Your task to perform on an android device: open app "Yahoo Mail" (install if not already installed) and enter user name: "lawsuit@inbox.com" and password: "pooch" Image 0: 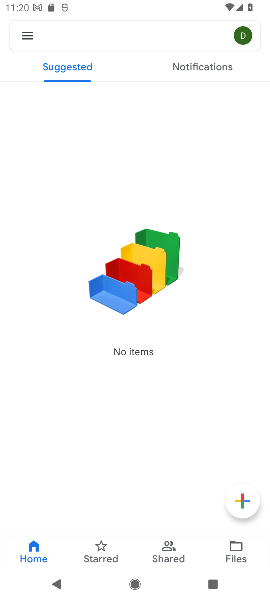
Step 0: drag from (125, 472) to (125, 114)
Your task to perform on an android device: open app "Yahoo Mail" (install if not already installed) and enter user name: "lawsuit@inbox.com" and password: "pooch" Image 1: 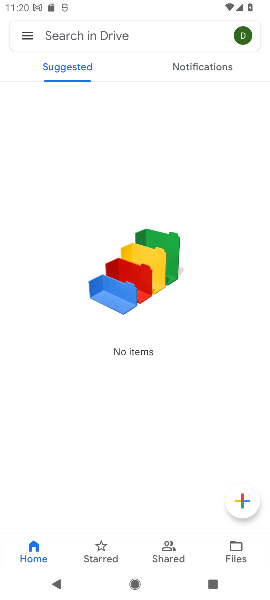
Step 1: press home button
Your task to perform on an android device: open app "Yahoo Mail" (install if not already installed) and enter user name: "lawsuit@inbox.com" and password: "pooch" Image 2: 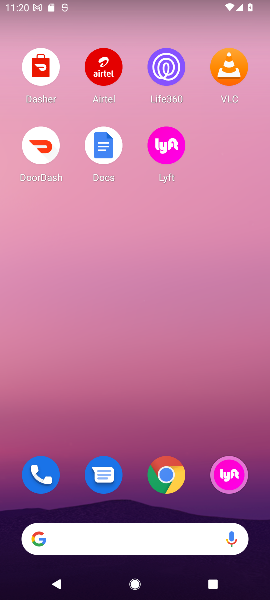
Step 2: drag from (121, 445) to (105, 87)
Your task to perform on an android device: open app "Yahoo Mail" (install if not already installed) and enter user name: "lawsuit@inbox.com" and password: "pooch" Image 3: 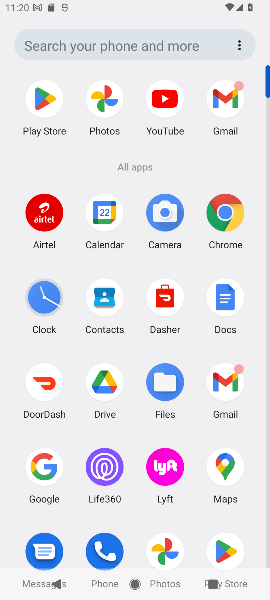
Step 3: click (36, 101)
Your task to perform on an android device: open app "Yahoo Mail" (install if not already installed) and enter user name: "lawsuit@inbox.com" and password: "pooch" Image 4: 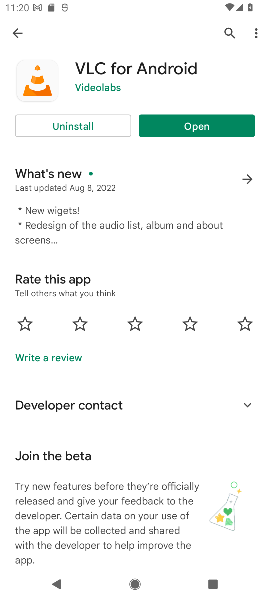
Step 4: click (21, 31)
Your task to perform on an android device: open app "Yahoo Mail" (install if not already installed) and enter user name: "lawsuit@inbox.com" and password: "pooch" Image 5: 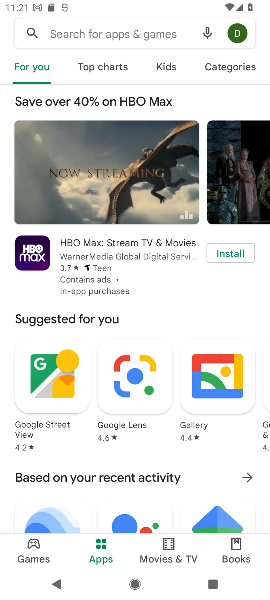
Step 5: click (85, 24)
Your task to perform on an android device: open app "Yahoo Mail" (install if not already installed) and enter user name: "lawsuit@inbox.com" and password: "pooch" Image 6: 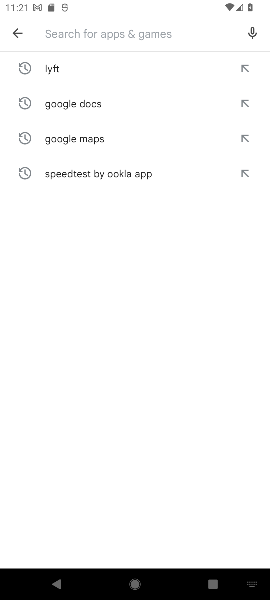
Step 6: type "Yahoo Mail"
Your task to perform on an android device: open app "Yahoo Mail" (install if not already installed) and enter user name: "lawsuit@inbox.com" and password: "pooch" Image 7: 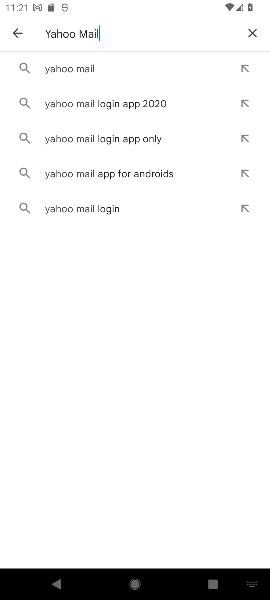
Step 7: click (93, 70)
Your task to perform on an android device: open app "Yahoo Mail" (install if not already installed) and enter user name: "lawsuit@inbox.com" and password: "pooch" Image 8: 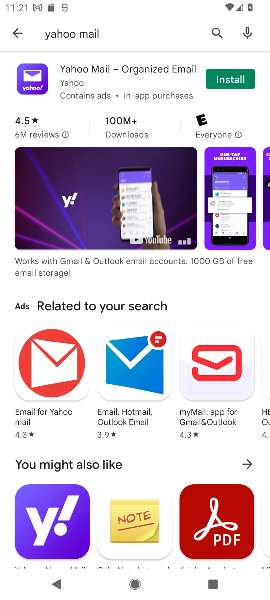
Step 8: click (236, 80)
Your task to perform on an android device: open app "Yahoo Mail" (install if not already installed) and enter user name: "lawsuit@inbox.com" and password: "pooch" Image 9: 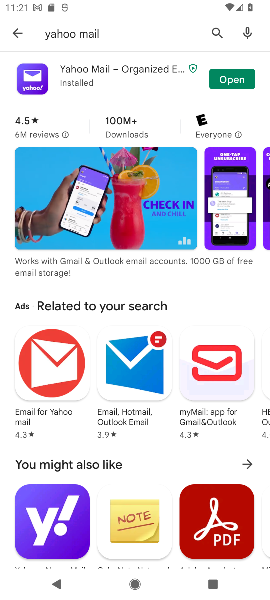
Step 9: click (237, 78)
Your task to perform on an android device: open app "Yahoo Mail" (install if not already installed) and enter user name: "lawsuit@inbox.com" and password: "pooch" Image 10: 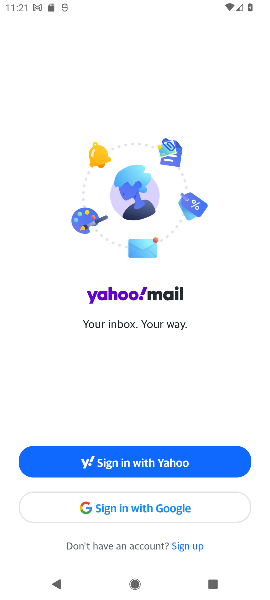
Step 10: task complete